Your task to perform on an android device: What is the recent news? Image 0: 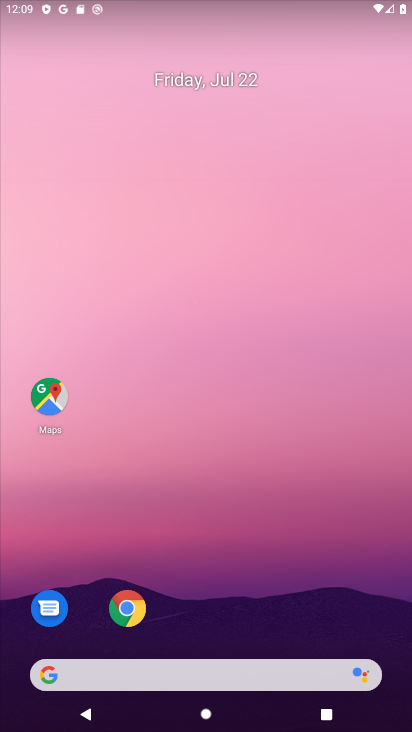
Step 0: press home button
Your task to perform on an android device: What is the recent news? Image 1: 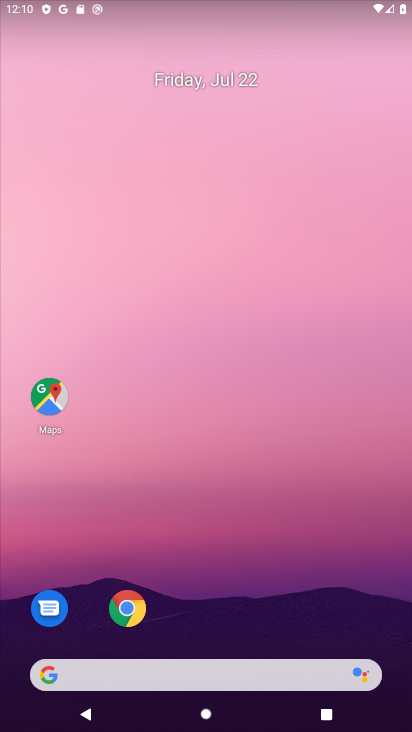
Step 1: task complete